Your task to perform on an android device: Turn on the flashlight Image 0: 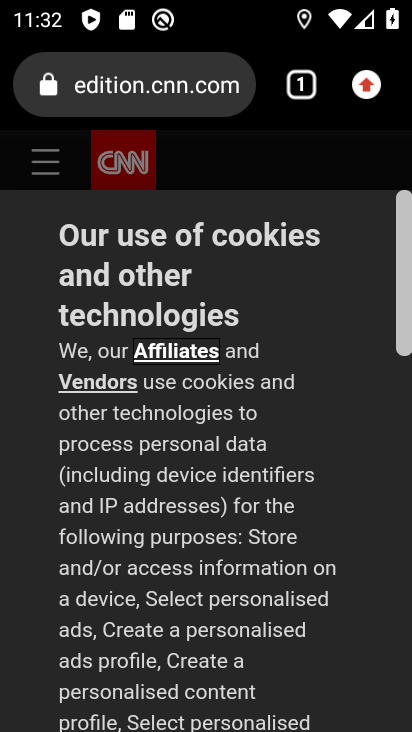
Step 0: press home button
Your task to perform on an android device: Turn on the flashlight Image 1: 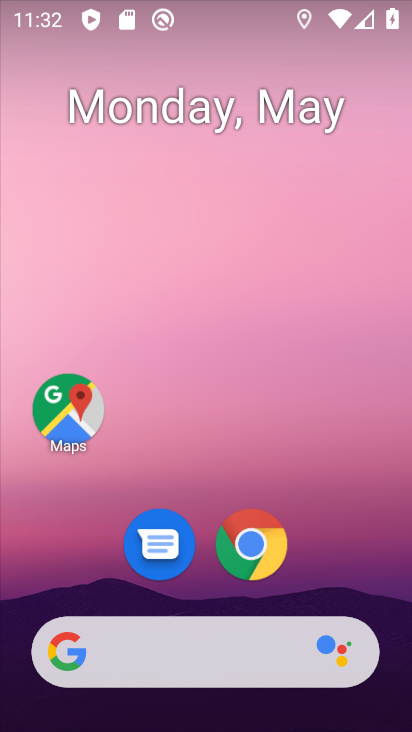
Step 1: drag from (332, 536) to (202, 142)
Your task to perform on an android device: Turn on the flashlight Image 2: 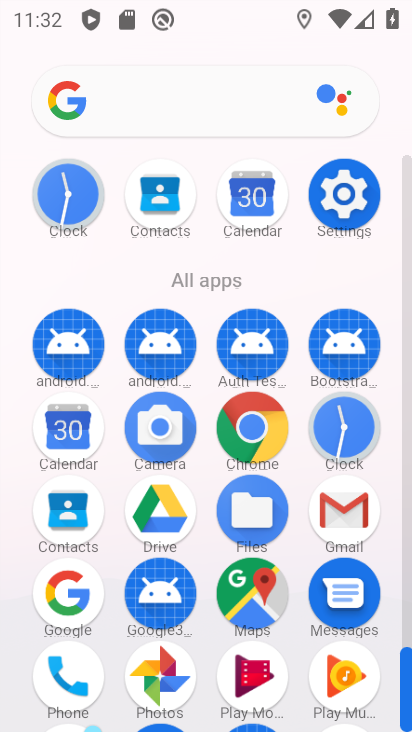
Step 2: click (342, 195)
Your task to perform on an android device: Turn on the flashlight Image 3: 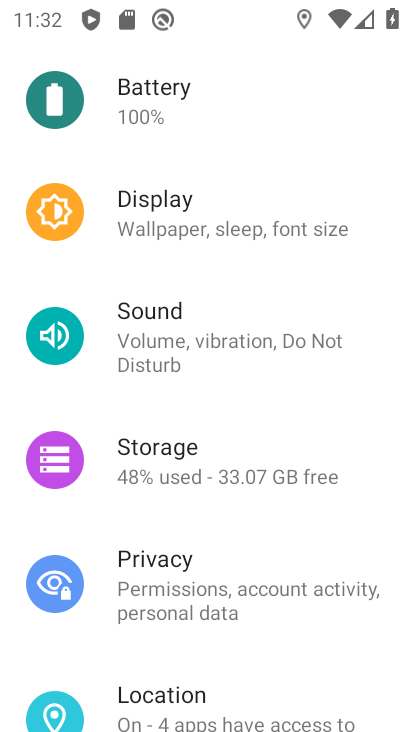
Step 3: task complete